Your task to perform on an android device: Open wifi settings Image 0: 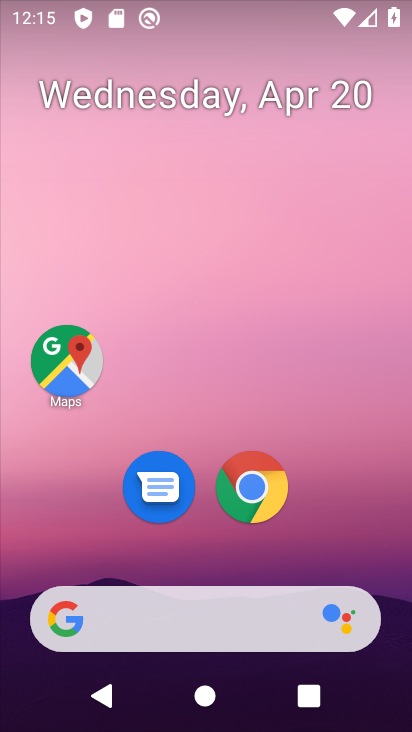
Step 0: drag from (358, 551) to (264, 34)
Your task to perform on an android device: Open wifi settings Image 1: 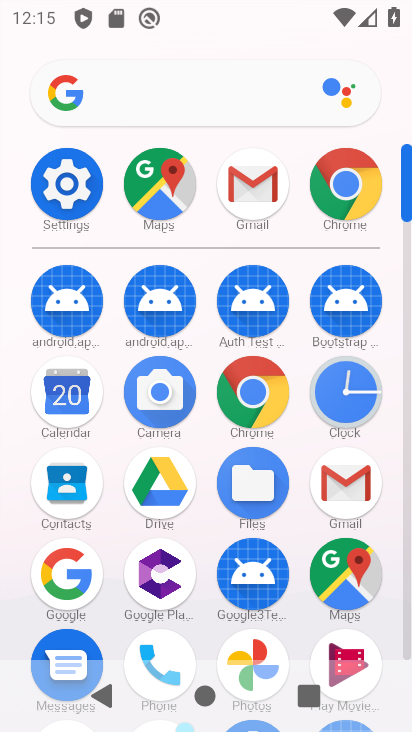
Step 1: click (55, 198)
Your task to perform on an android device: Open wifi settings Image 2: 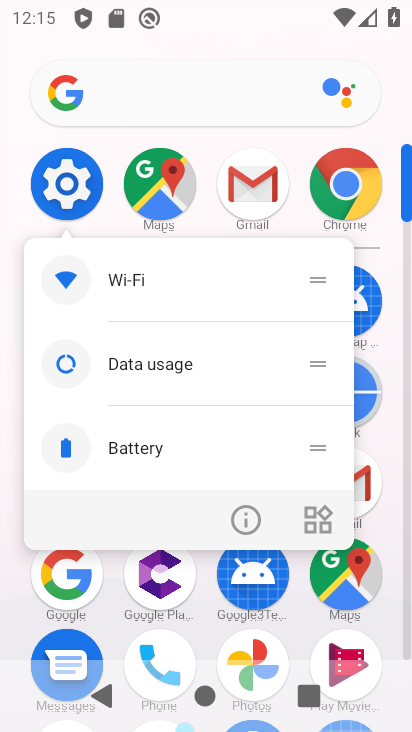
Step 2: click (55, 198)
Your task to perform on an android device: Open wifi settings Image 3: 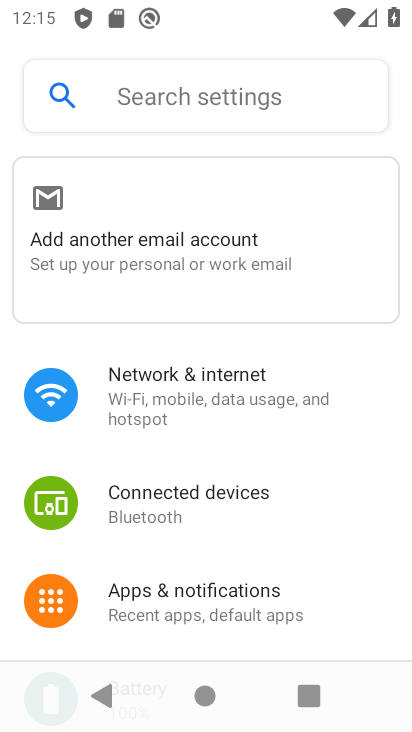
Step 3: click (186, 382)
Your task to perform on an android device: Open wifi settings Image 4: 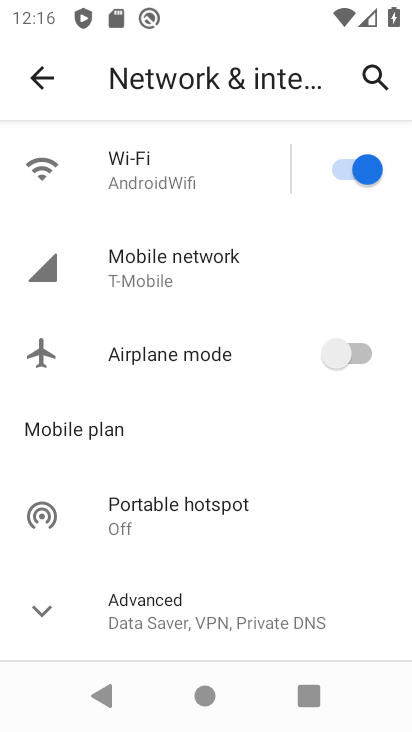
Step 4: click (186, 158)
Your task to perform on an android device: Open wifi settings Image 5: 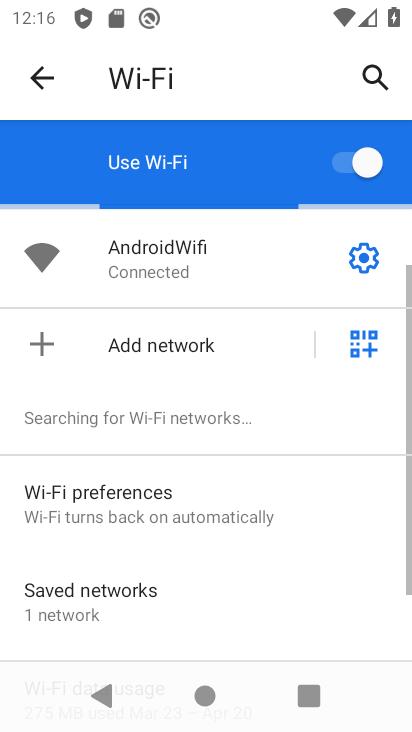
Step 5: task complete